Your task to perform on an android device: turn off wifi Image 0: 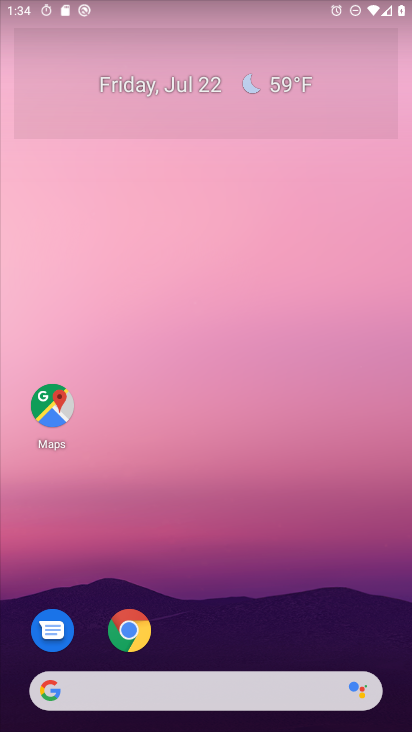
Step 0: press home button
Your task to perform on an android device: turn off wifi Image 1: 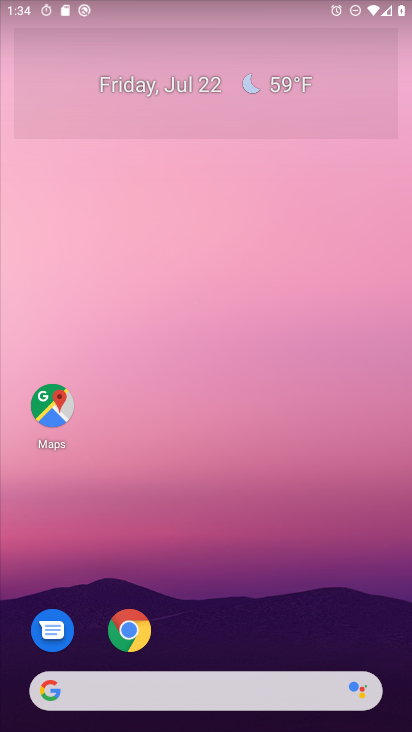
Step 1: drag from (176, 0) to (194, 551)
Your task to perform on an android device: turn off wifi Image 2: 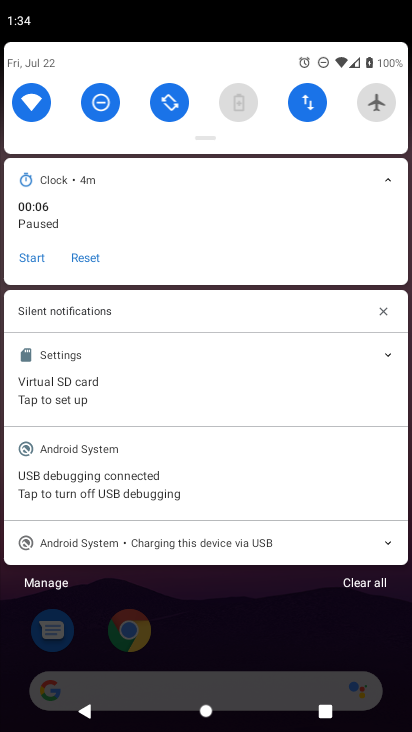
Step 2: click (24, 111)
Your task to perform on an android device: turn off wifi Image 3: 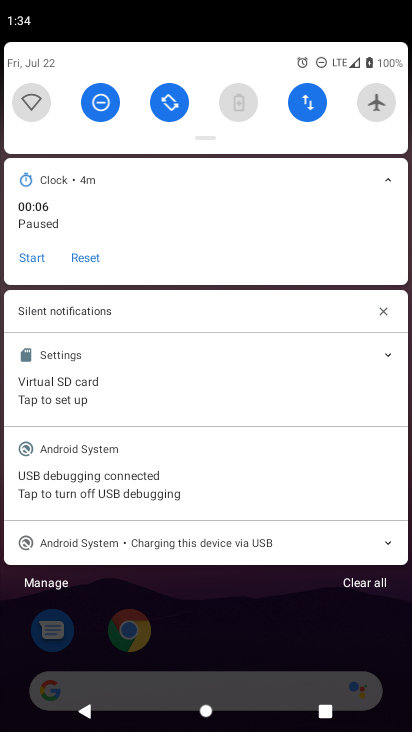
Step 3: task complete